Your task to perform on an android device: Open calendar and show me the fourth week of next month Image 0: 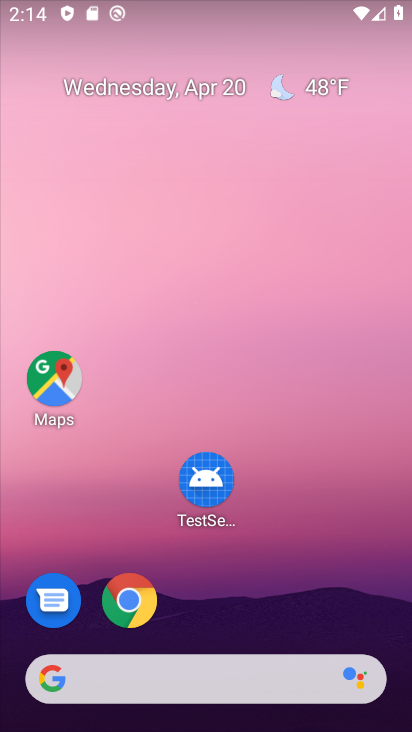
Step 0: drag from (253, 616) to (253, 115)
Your task to perform on an android device: Open calendar and show me the fourth week of next month Image 1: 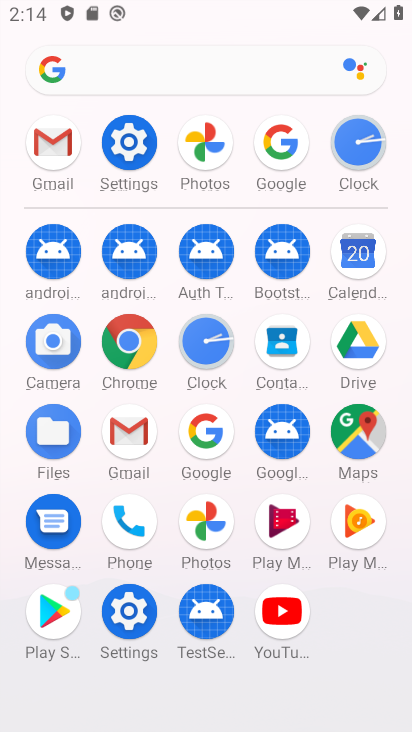
Step 1: click (346, 252)
Your task to perform on an android device: Open calendar and show me the fourth week of next month Image 2: 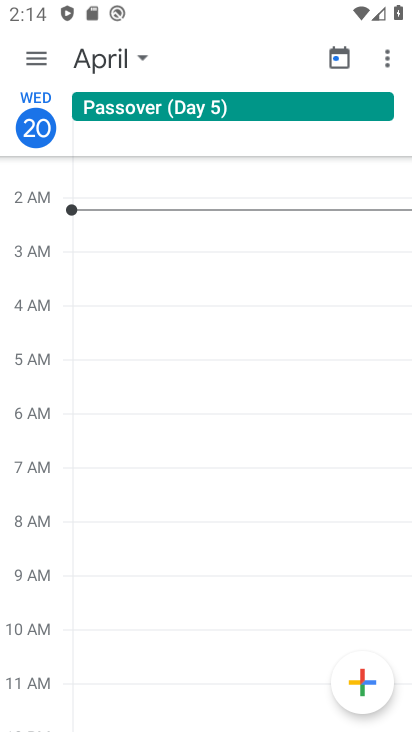
Step 2: click (131, 55)
Your task to perform on an android device: Open calendar and show me the fourth week of next month Image 3: 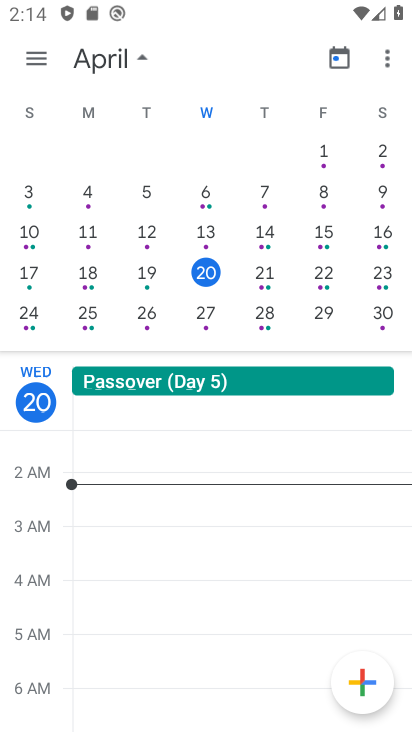
Step 3: drag from (395, 220) to (27, 194)
Your task to perform on an android device: Open calendar and show me the fourth week of next month Image 4: 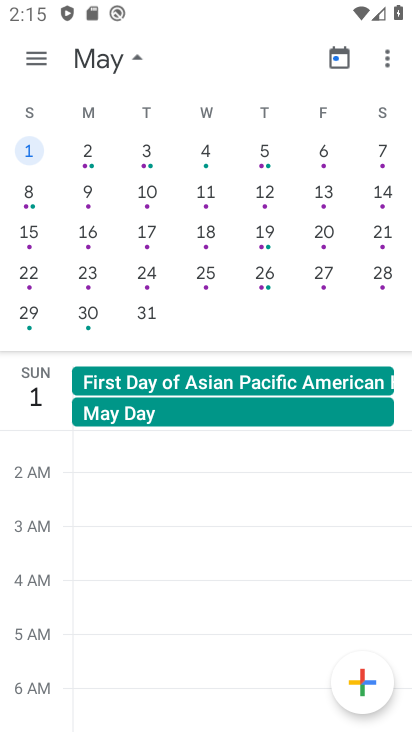
Step 4: click (28, 68)
Your task to perform on an android device: Open calendar and show me the fourth week of next month Image 5: 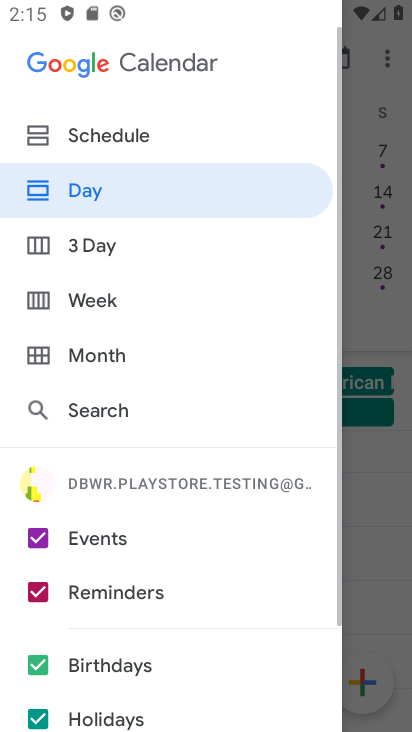
Step 5: click (116, 303)
Your task to perform on an android device: Open calendar and show me the fourth week of next month Image 6: 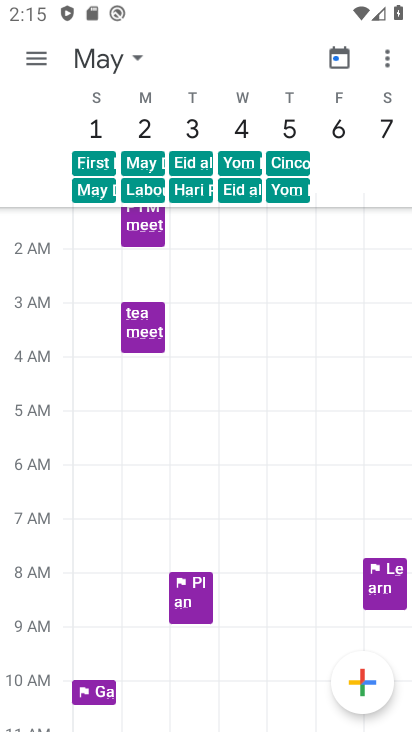
Step 6: task complete